Your task to perform on an android device: Do I have any events this weekend? Image 0: 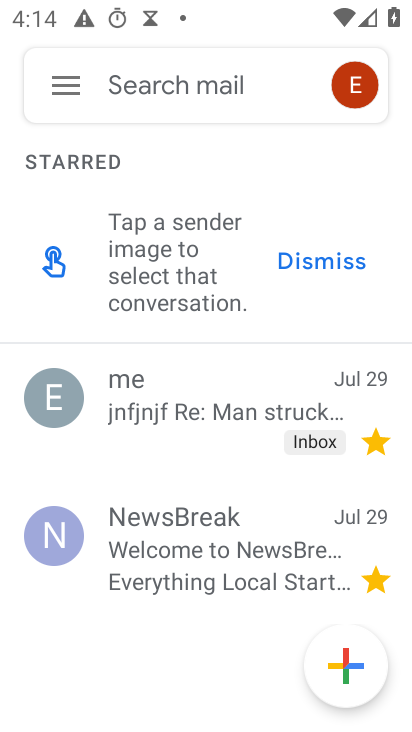
Step 0: drag from (190, 562) to (161, 266)
Your task to perform on an android device: Do I have any events this weekend? Image 1: 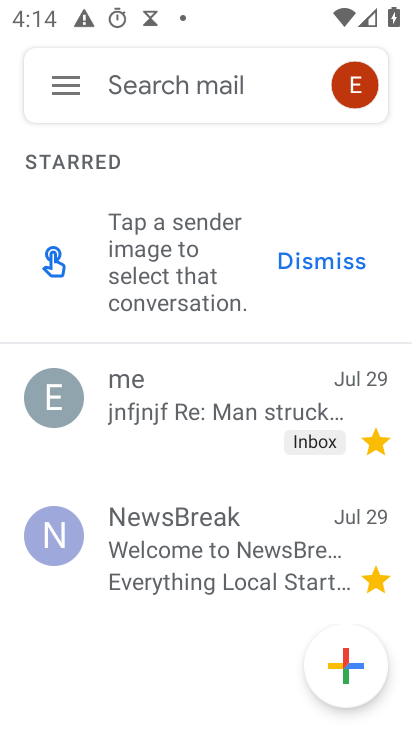
Step 1: press back button
Your task to perform on an android device: Do I have any events this weekend? Image 2: 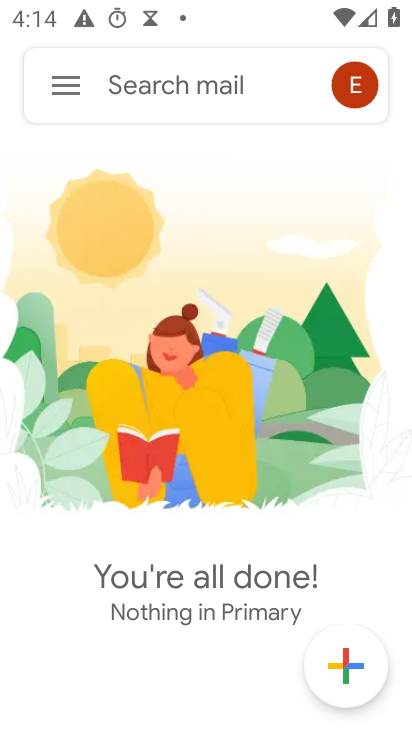
Step 2: press home button
Your task to perform on an android device: Do I have any events this weekend? Image 3: 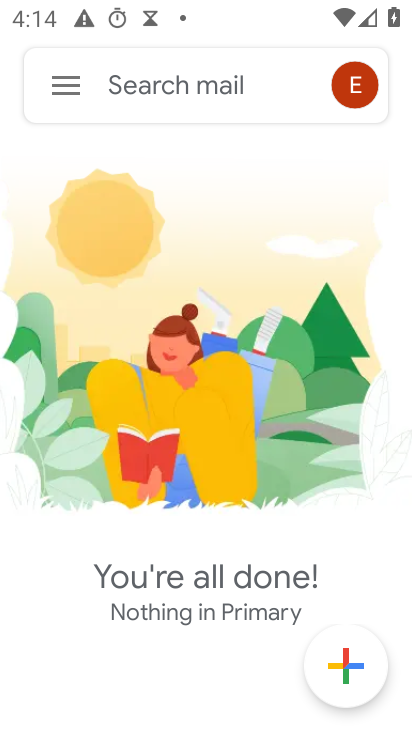
Step 3: press home button
Your task to perform on an android device: Do I have any events this weekend? Image 4: 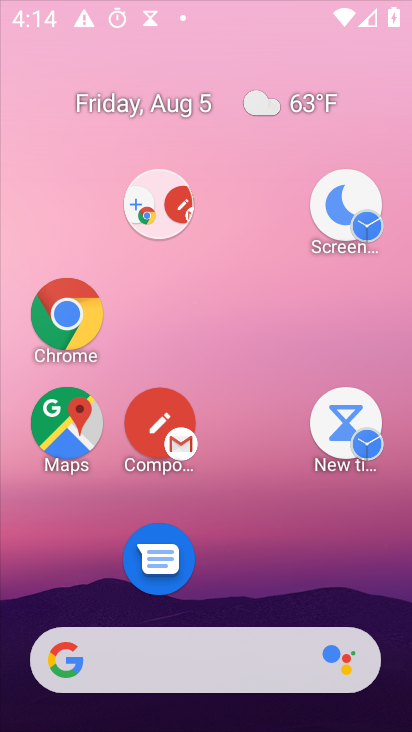
Step 4: press back button
Your task to perform on an android device: Do I have any events this weekend? Image 5: 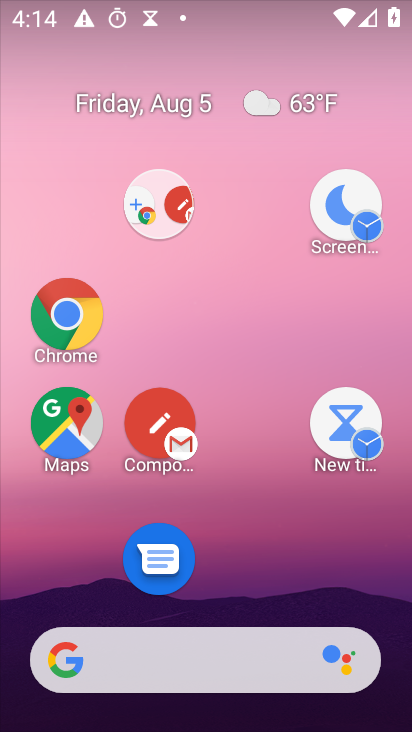
Step 5: press back button
Your task to perform on an android device: Do I have any events this weekend? Image 6: 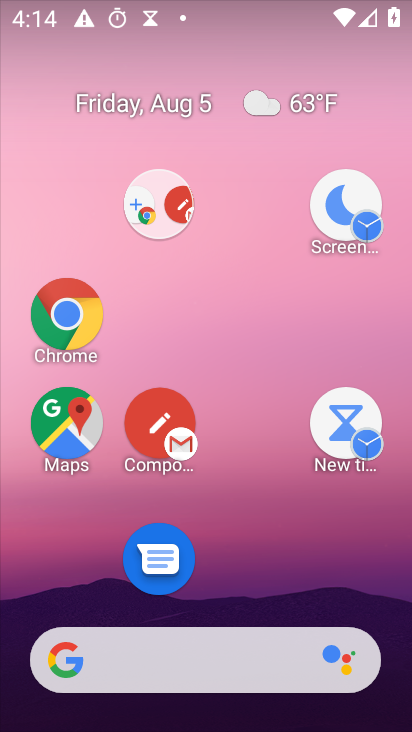
Step 6: press back button
Your task to perform on an android device: Do I have any events this weekend? Image 7: 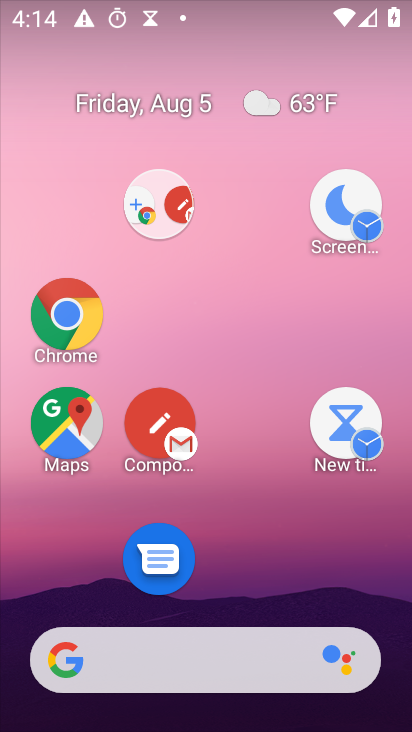
Step 7: click (172, 224)
Your task to perform on an android device: Do I have any events this weekend? Image 8: 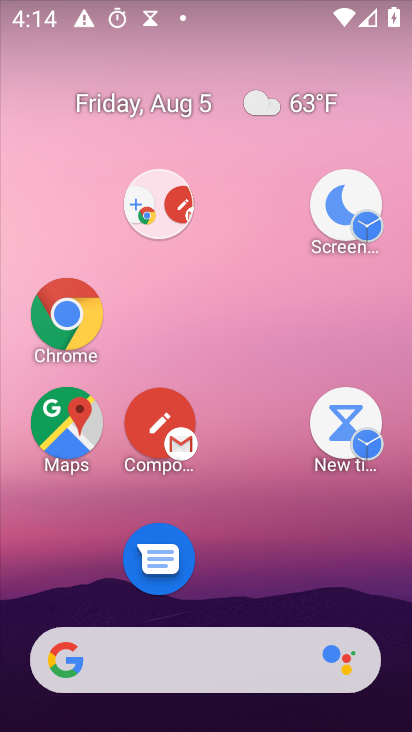
Step 8: drag from (303, 630) to (222, 107)
Your task to perform on an android device: Do I have any events this weekend? Image 9: 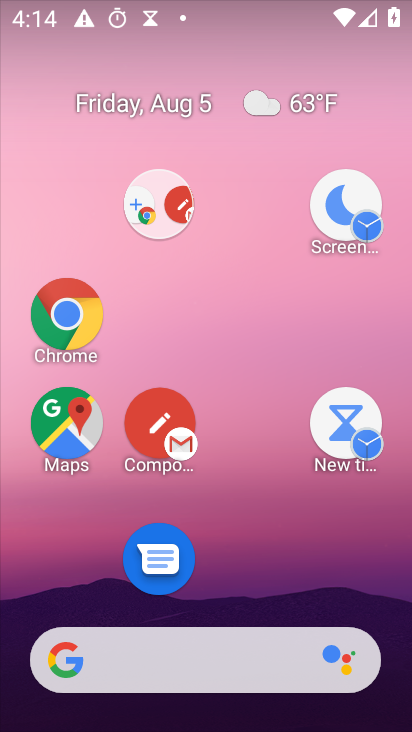
Step 9: drag from (231, 393) to (254, 76)
Your task to perform on an android device: Do I have any events this weekend? Image 10: 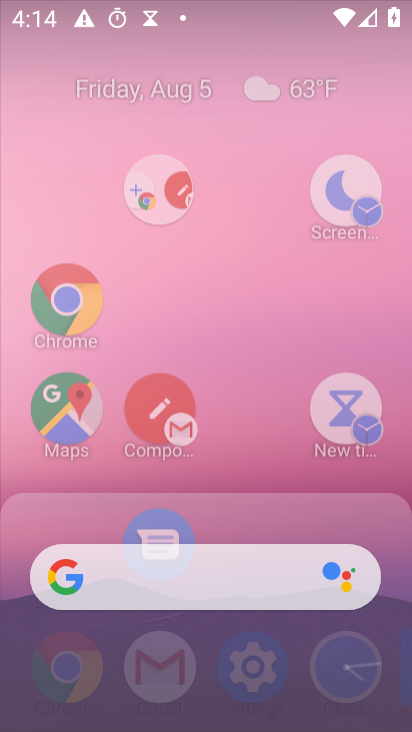
Step 10: drag from (239, 578) to (160, 155)
Your task to perform on an android device: Do I have any events this weekend? Image 11: 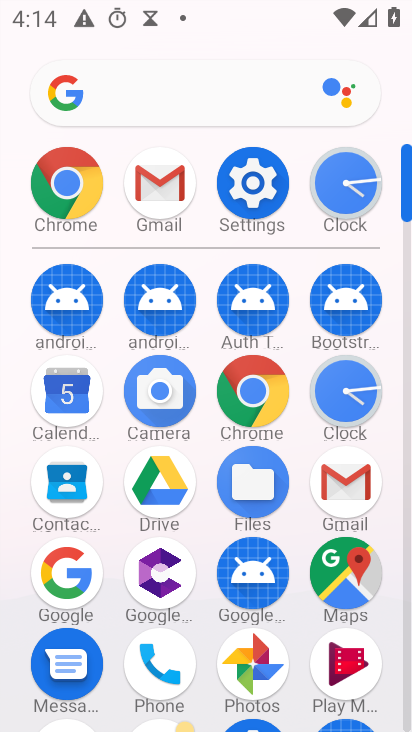
Step 11: click (66, 402)
Your task to perform on an android device: Do I have any events this weekend? Image 12: 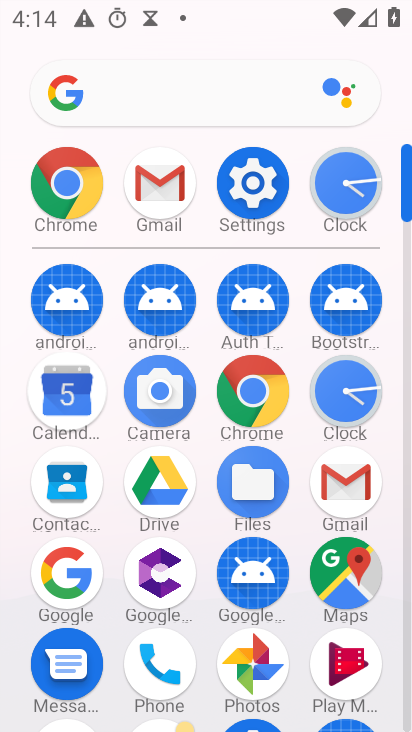
Step 12: click (66, 402)
Your task to perform on an android device: Do I have any events this weekend? Image 13: 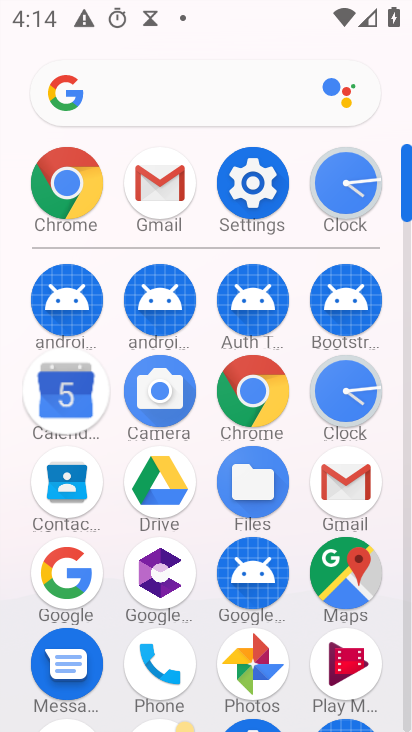
Step 13: click (68, 400)
Your task to perform on an android device: Do I have any events this weekend? Image 14: 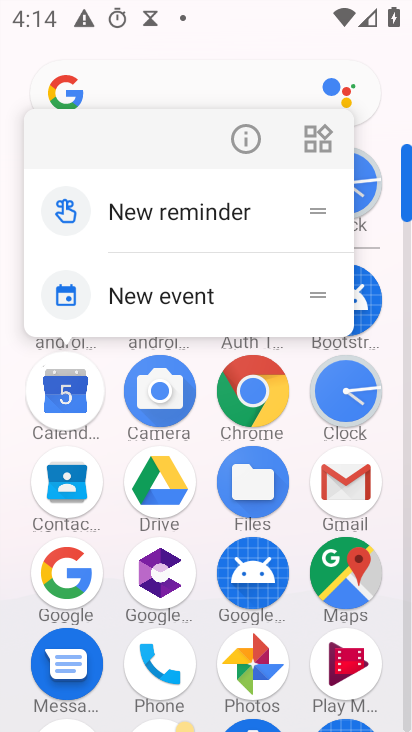
Step 14: click (78, 395)
Your task to perform on an android device: Do I have any events this weekend? Image 15: 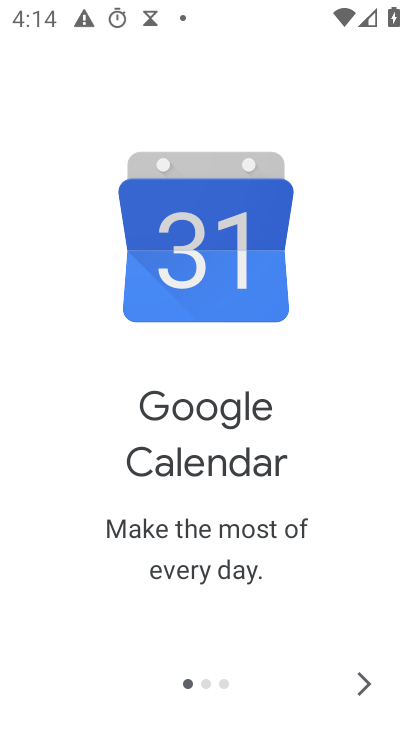
Step 15: click (359, 673)
Your task to perform on an android device: Do I have any events this weekend? Image 16: 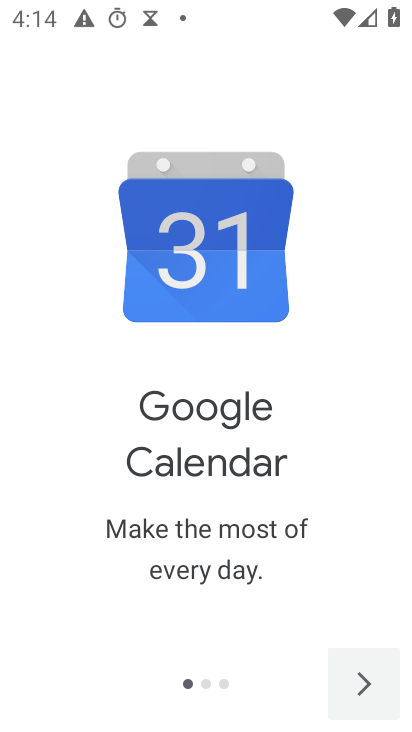
Step 16: click (364, 679)
Your task to perform on an android device: Do I have any events this weekend? Image 17: 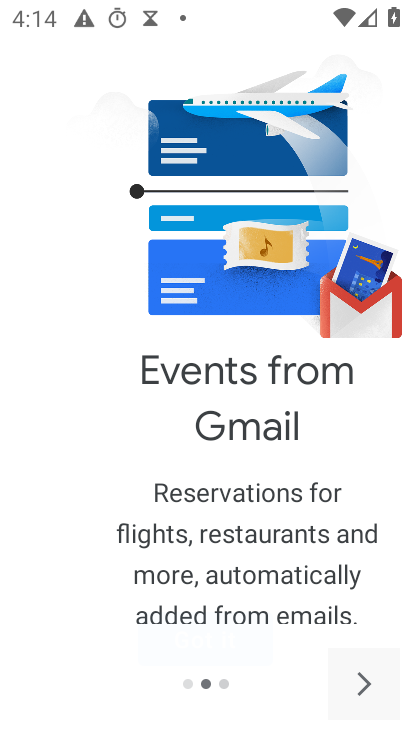
Step 17: click (371, 675)
Your task to perform on an android device: Do I have any events this weekend? Image 18: 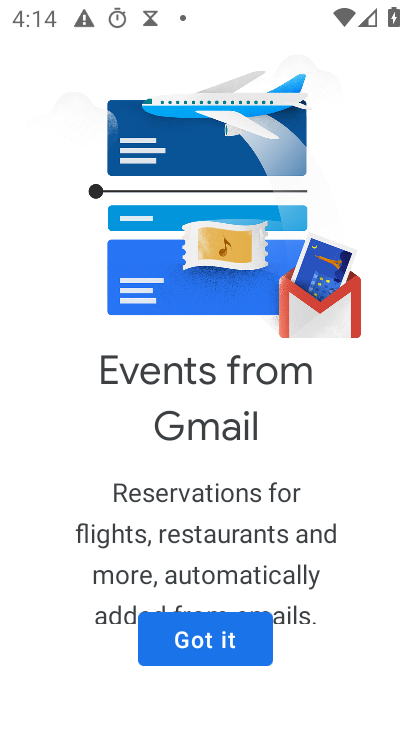
Step 18: click (371, 663)
Your task to perform on an android device: Do I have any events this weekend? Image 19: 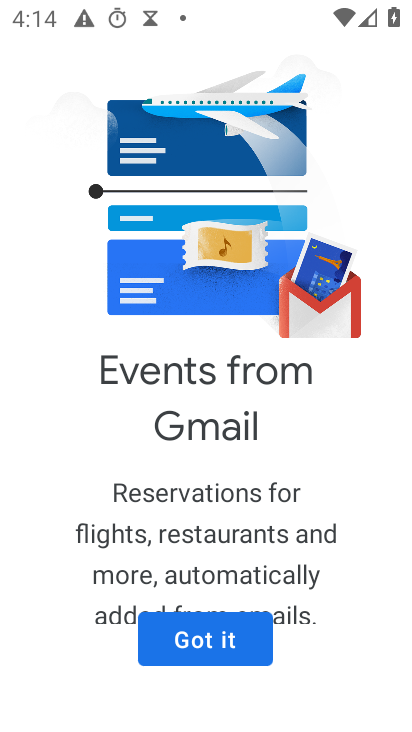
Step 19: click (227, 637)
Your task to perform on an android device: Do I have any events this weekend? Image 20: 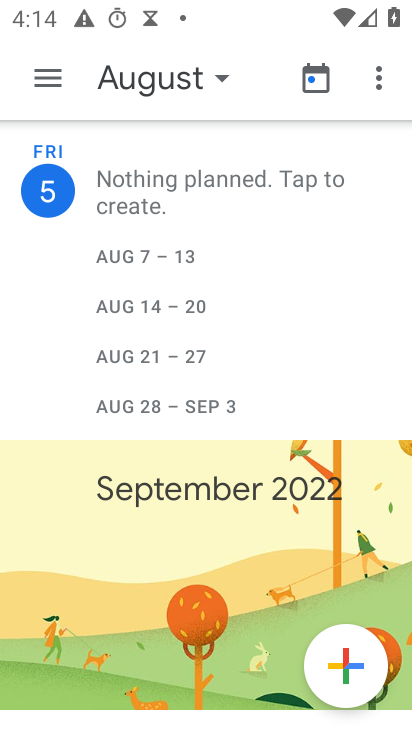
Step 20: click (220, 74)
Your task to perform on an android device: Do I have any events this weekend? Image 21: 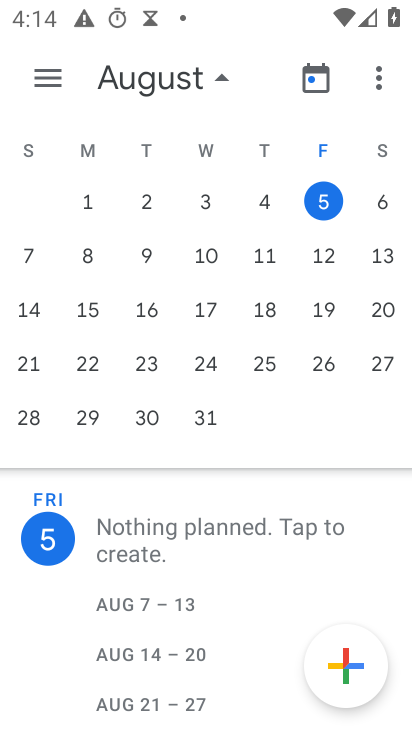
Step 21: click (381, 199)
Your task to perform on an android device: Do I have any events this weekend? Image 22: 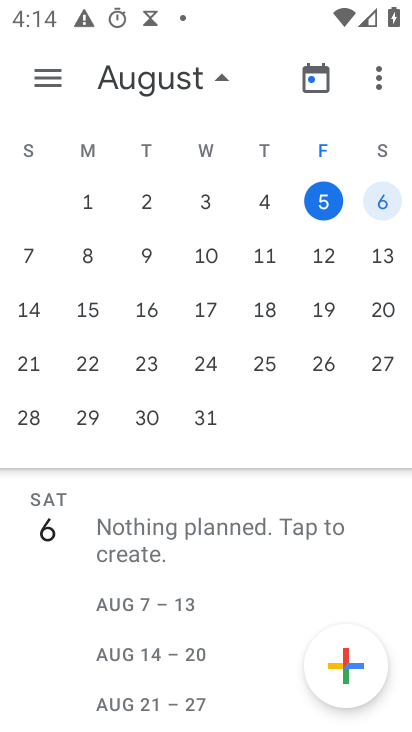
Step 22: click (382, 200)
Your task to perform on an android device: Do I have any events this weekend? Image 23: 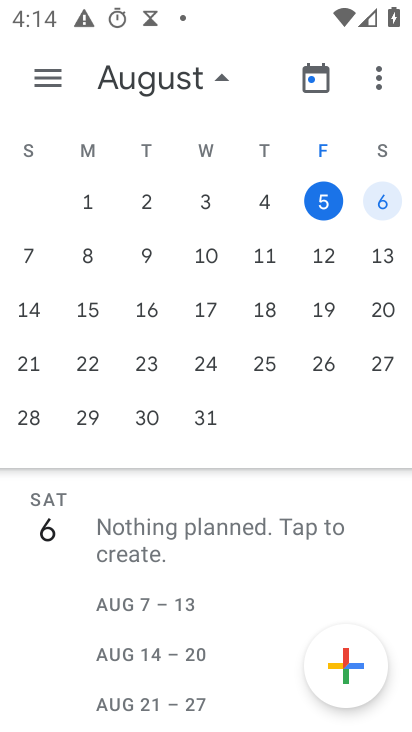
Step 23: click (382, 200)
Your task to perform on an android device: Do I have any events this weekend? Image 24: 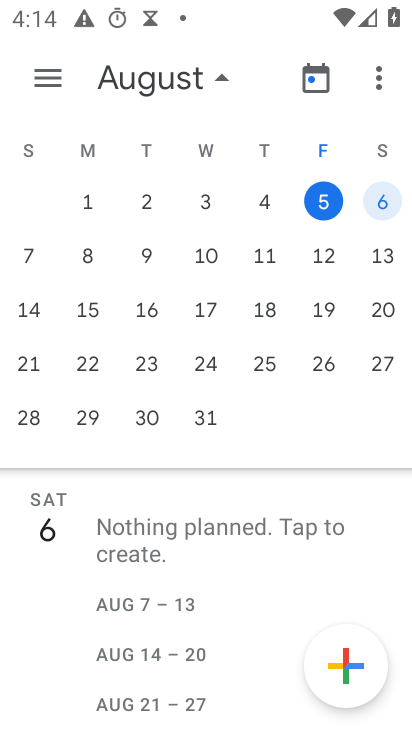
Step 24: task complete